Your task to perform on an android device: see sites visited before in the chrome app Image 0: 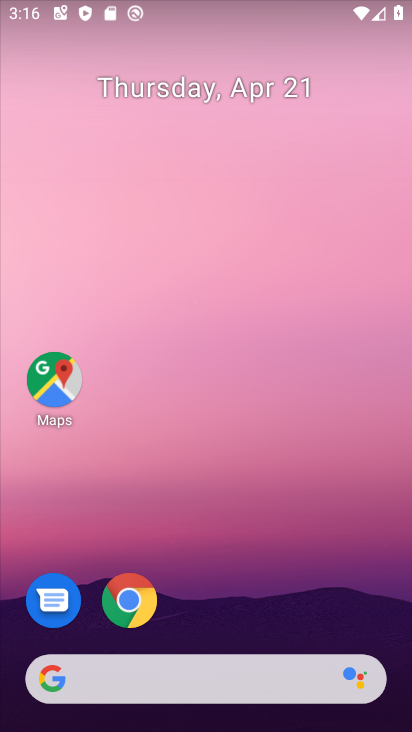
Step 0: click (143, 604)
Your task to perform on an android device: see sites visited before in the chrome app Image 1: 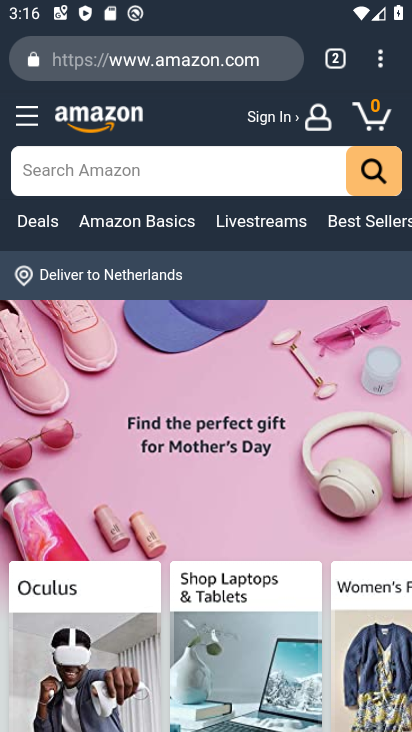
Step 1: click (380, 78)
Your task to perform on an android device: see sites visited before in the chrome app Image 2: 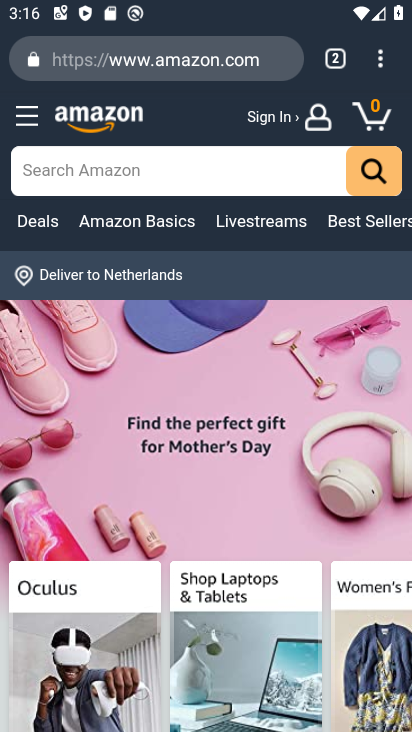
Step 2: click (384, 75)
Your task to perform on an android device: see sites visited before in the chrome app Image 3: 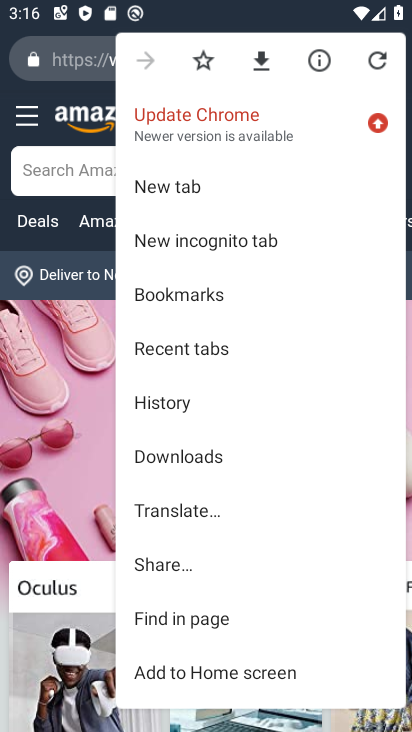
Step 3: click (201, 395)
Your task to perform on an android device: see sites visited before in the chrome app Image 4: 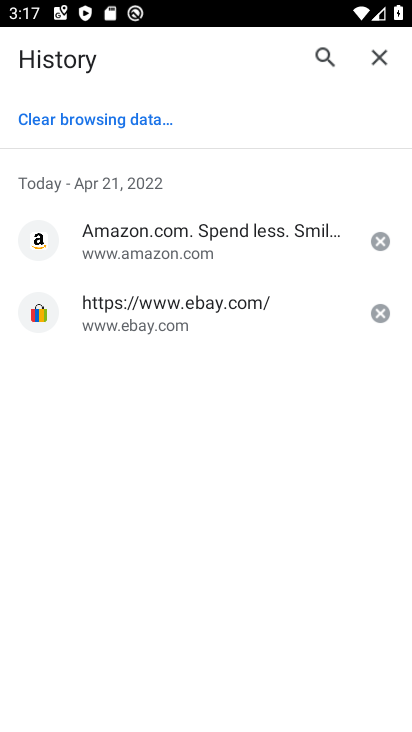
Step 4: task complete